Your task to perform on an android device: open a new tab in the chrome app Image 0: 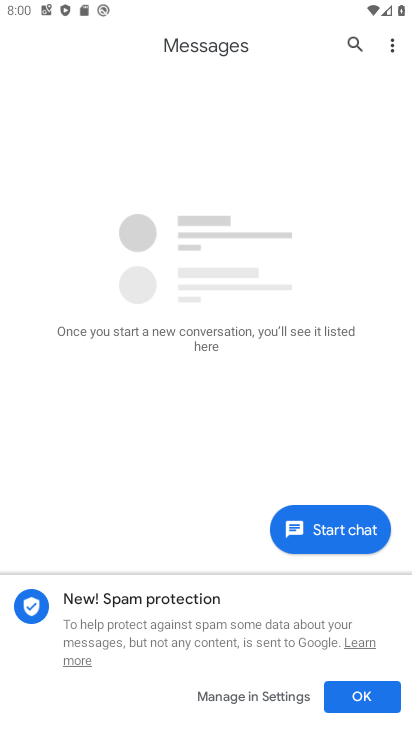
Step 0: press home button
Your task to perform on an android device: open a new tab in the chrome app Image 1: 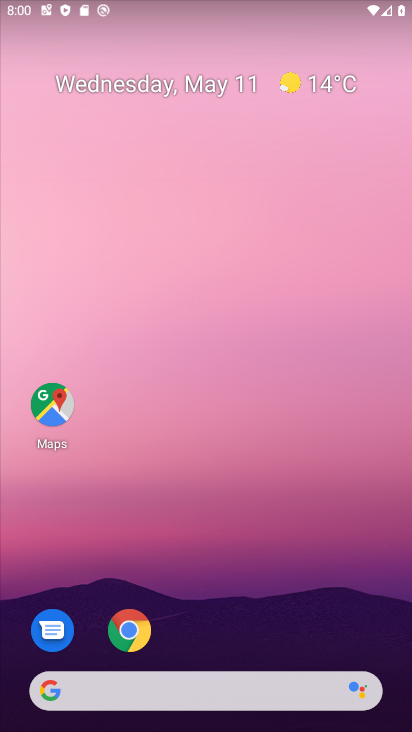
Step 1: click (136, 638)
Your task to perform on an android device: open a new tab in the chrome app Image 2: 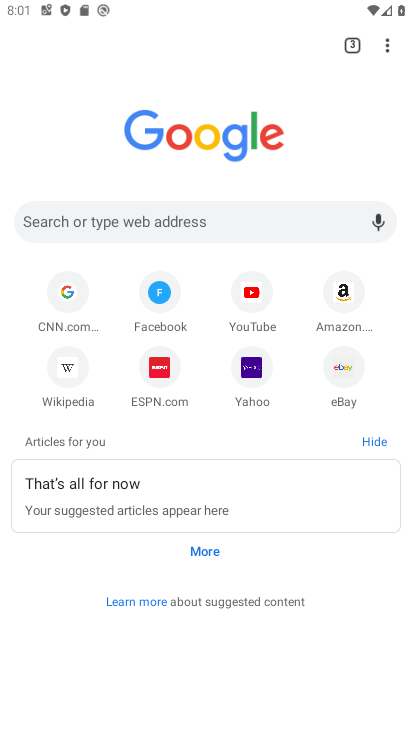
Step 2: click (355, 46)
Your task to perform on an android device: open a new tab in the chrome app Image 3: 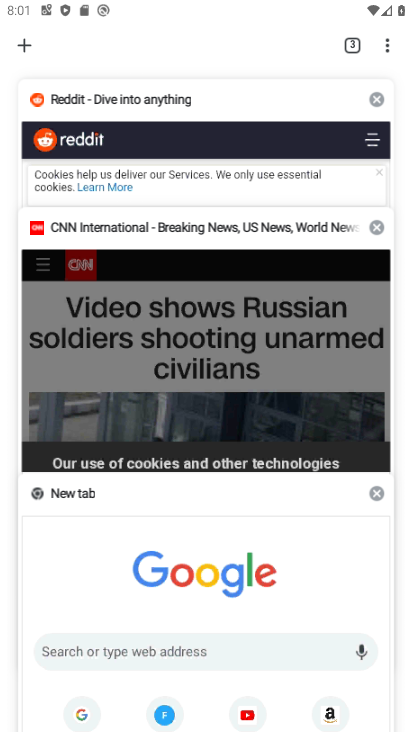
Step 3: click (22, 46)
Your task to perform on an android device: open a new tab in the chrome app Image 4: 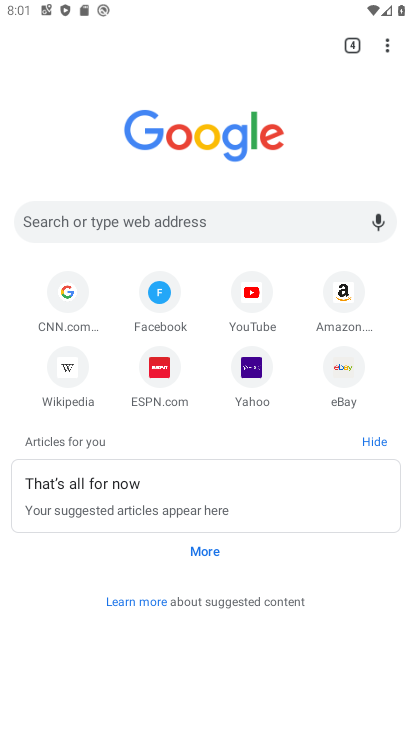
Step 4: task complete